Your task to perform on an android device: Go to Wikipedia Image 0: 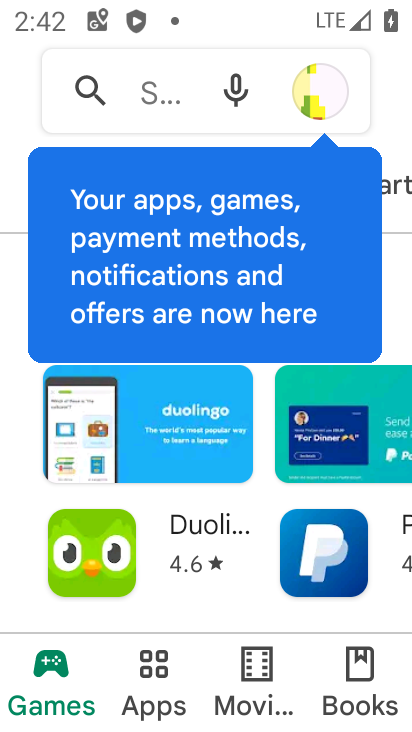
Step 0: press back button
Your task to perform on an android device: Go to Wikipedia Image 1: 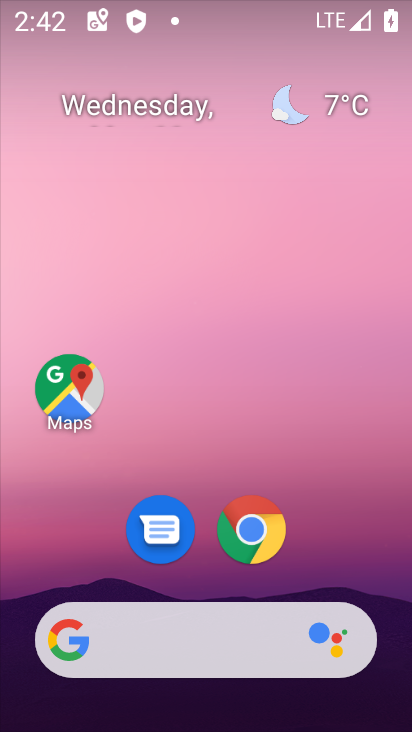
Step 1: click (260, 516)
Your task to perform on an android device: Go to Wikipedia Image 2: 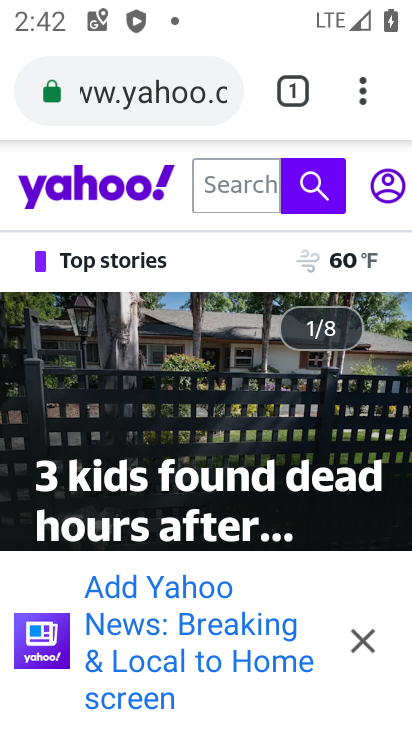
Step 2: click (305, 99)
Your task to perform on an android device: Go to Wikipedia Image 3: 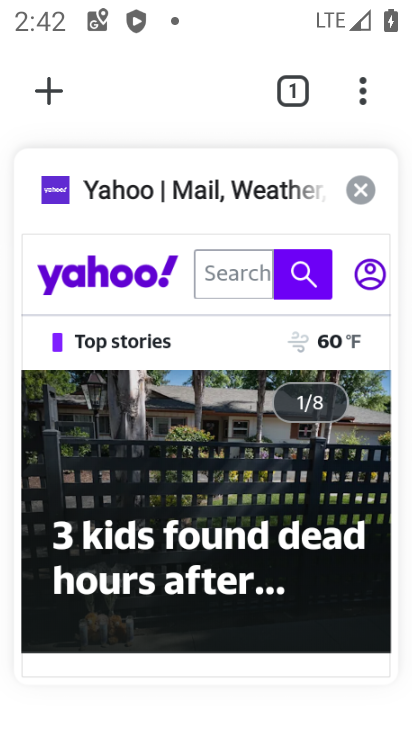
Step 3: click (48, 97)
Your task to perform on an android device: Go to Wikipedia Image 4: 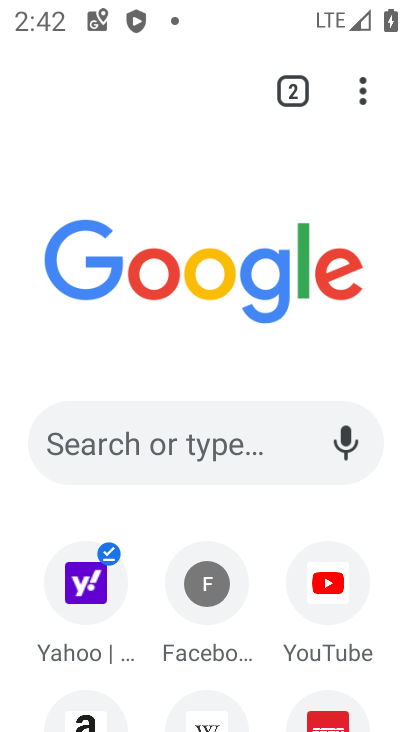
Step 4: drag from (88, 668) to (267, 168)
Your task to perform on an android device: Go to Wikipedia Image 5: 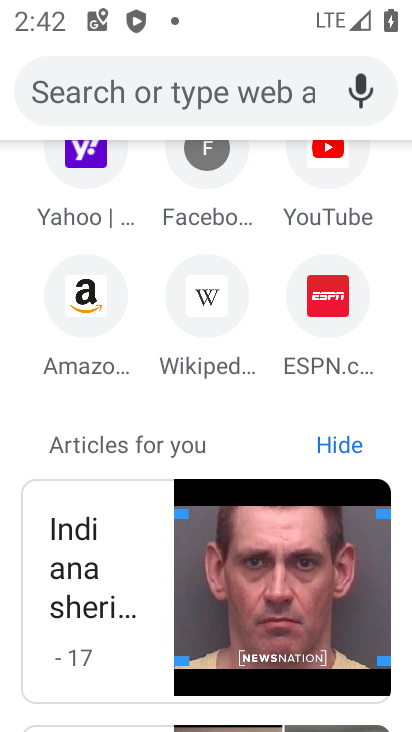
Step 5: click (195, 298)
Your task to perform on an android device: Go to Wikipedia Image 6: 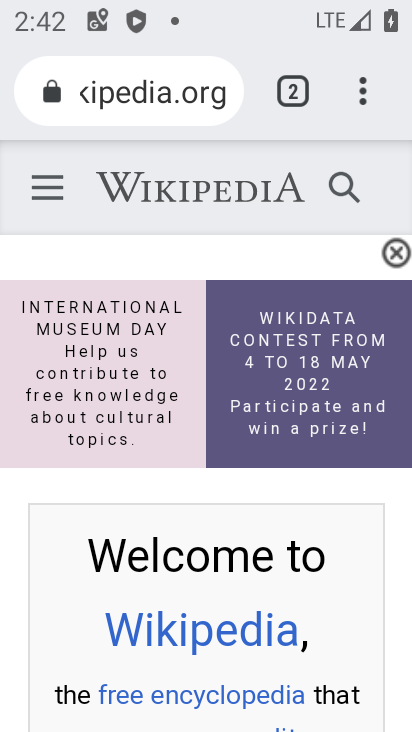
Step 6: task complete